Your task to perform on an android device: Open my contact list Image 0: 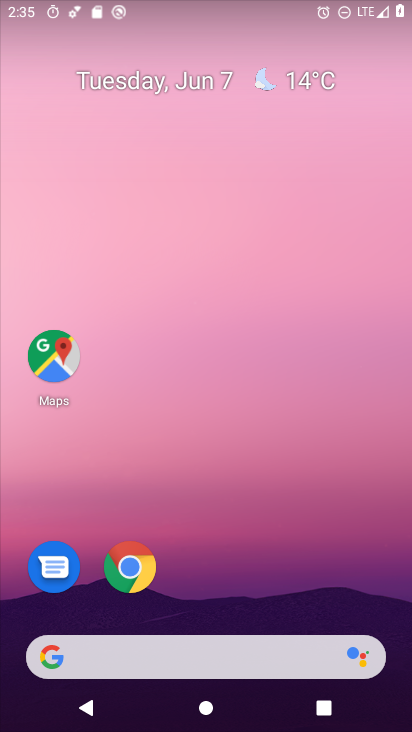
Step 0: drag from (325, 579) to (400, 389)
Your task to perform on an android device: Open my contact list Image 1: 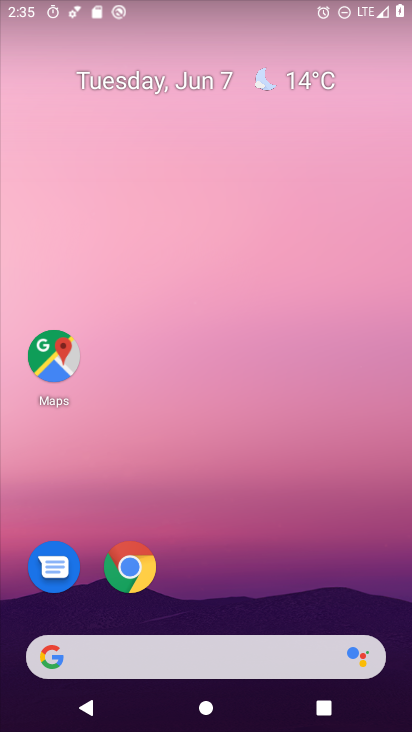
Step 1: drag from (263, 533) to (364, 14)
Your task to perform on an android device: Open my contact list Image 2: 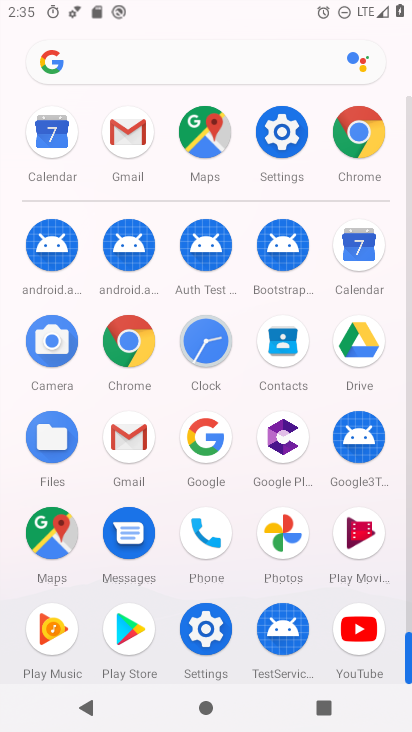
Step 2: click (211, 540)
Your task to perform on an android device: Open my contact list Image 3: 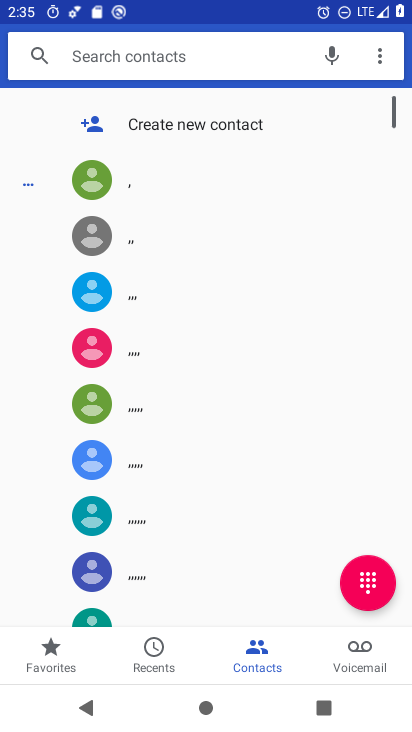
Step 3: click (237, 646)
Your task to perform on an android device: Open my contact list Image 4: 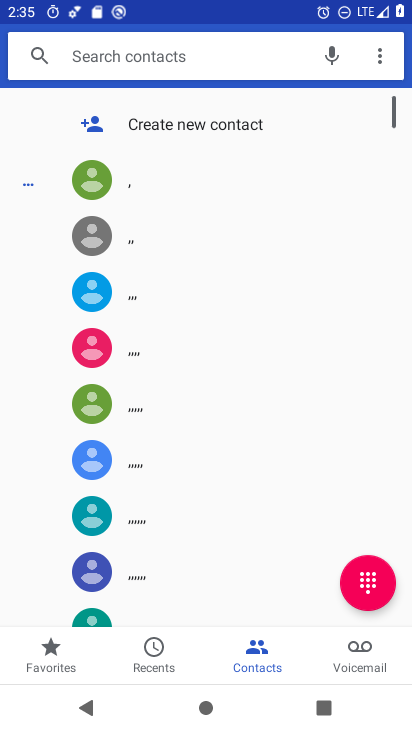
Step 4: task complete